Your task to perform on an android device: Search for "razer blackwidow" on bestbuy.com, select the first entry, add it to the cart, then select checkout. Image 0: 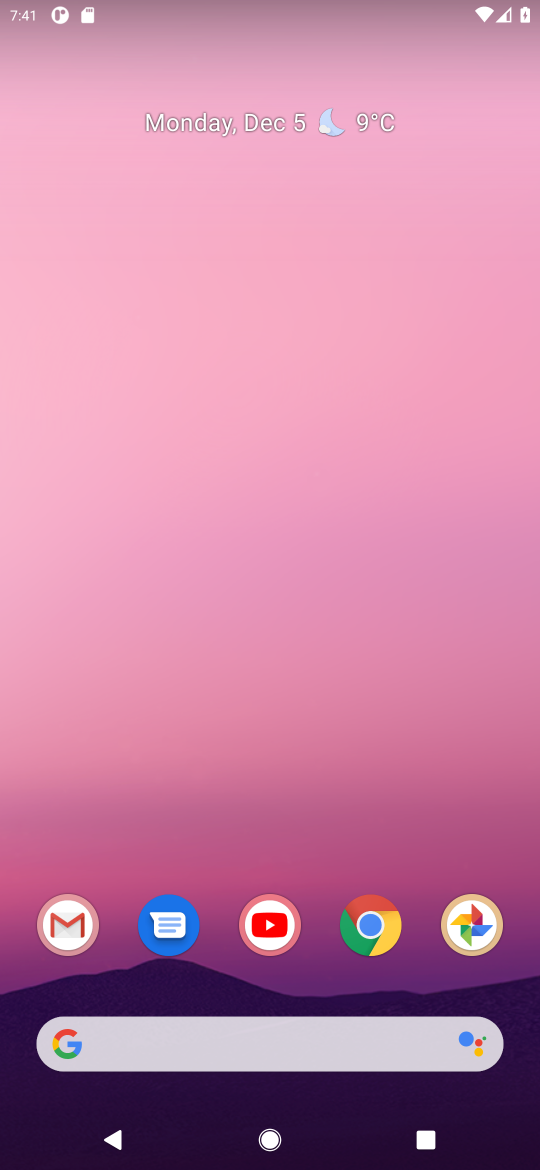
Step 0: click (370, 933)
Your task to perform on an android device: Search for "razer blackwidow" on bestbuy.com, select the first entry, add it to the cart, then select checkout. Image 1: 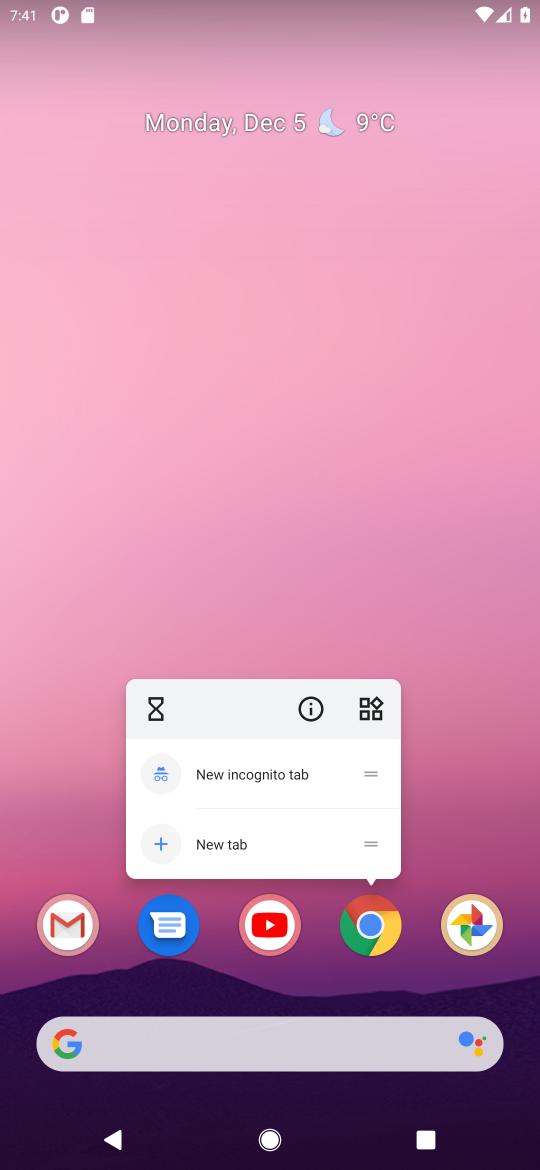
Step 1: click (370, 933)
Your task to perform on an android device: Search for "razer blackwidow" on bestbuy.com, select the first entry, add it to the cart, then select checkout. Image 2: 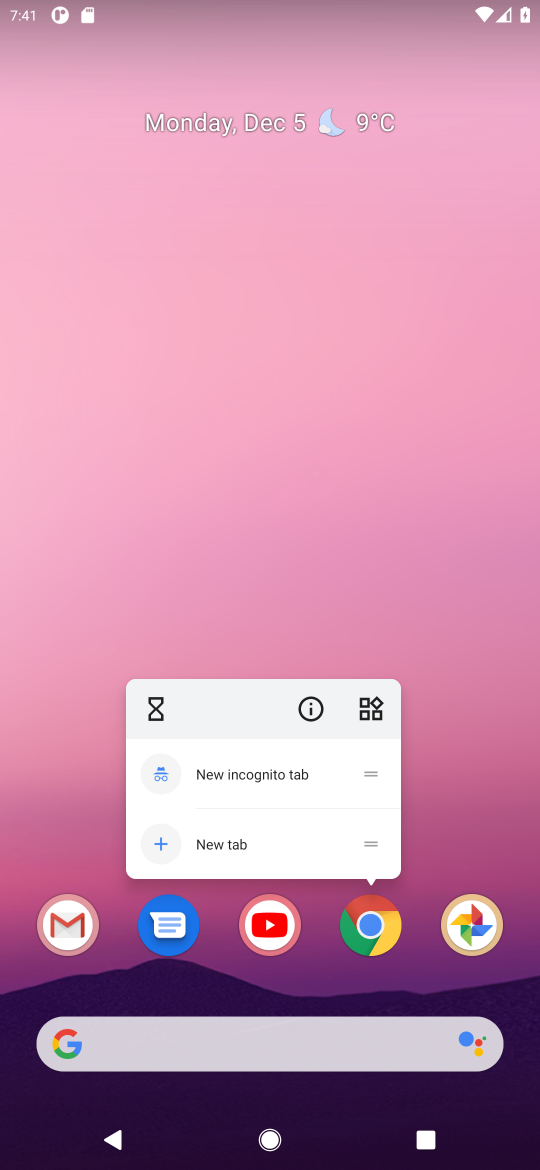
Step 2: click (366, 926)
Your task to perform on an android device: Search for "razer blackwidow" on bestbuy.com, select the first entry, add it to the cart, then select checkout. Image 3: 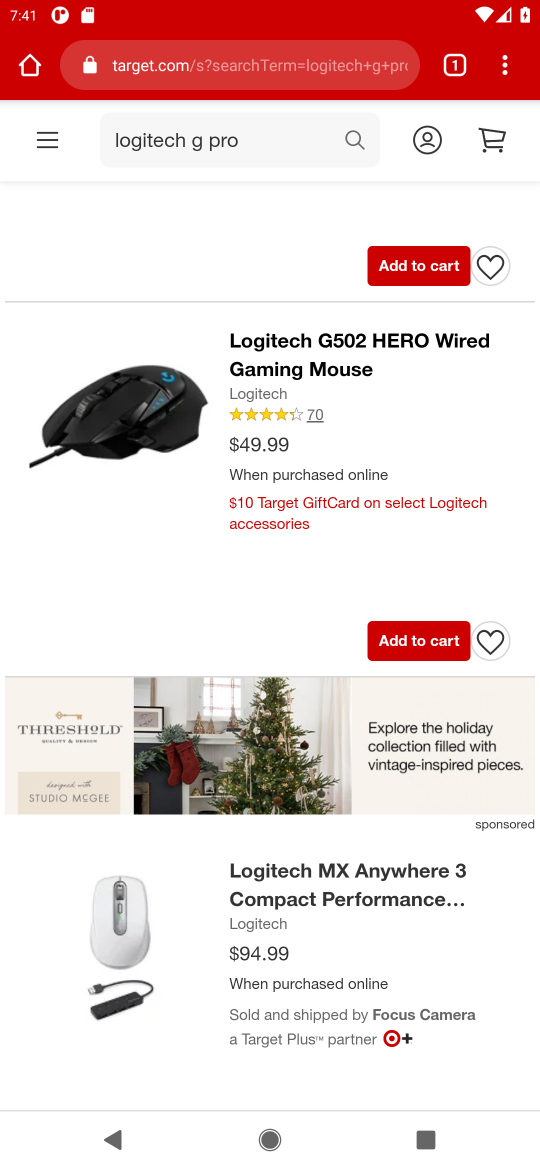
Step 3: click (227, 70)
Your task to perform on an android device: Search for "razer blackwidow" on bestbuy.com, select the first entry, add it to the cart, then select checkout. Image 4: 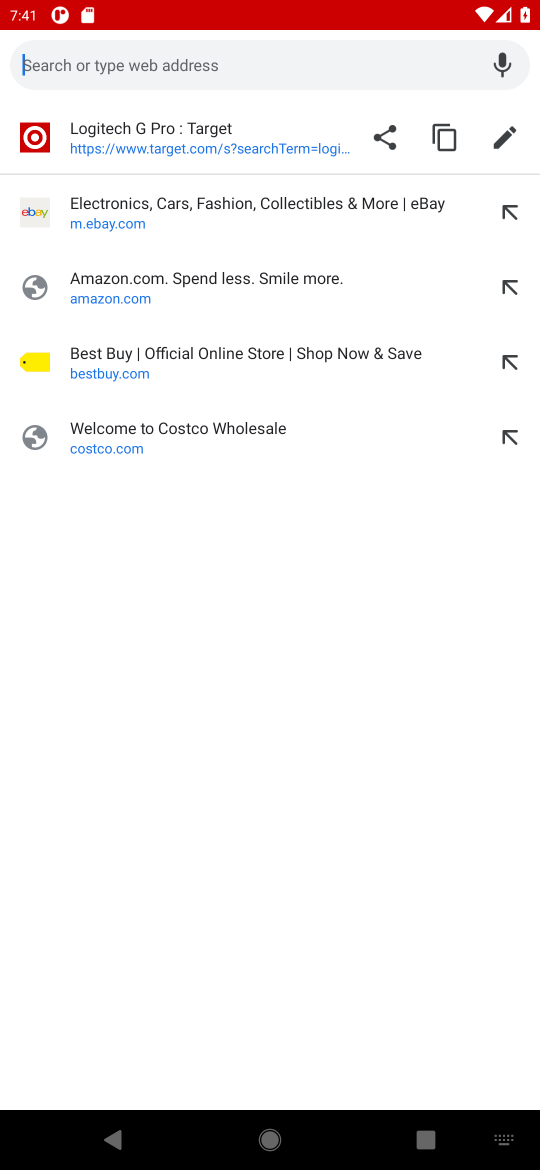
Step 4: click (105, 357)
Your task to perform on an android device: Search for "razer blackwidow" on bestbuy.com, select the first entry, add it to the cart, then select checkout. Image 5: 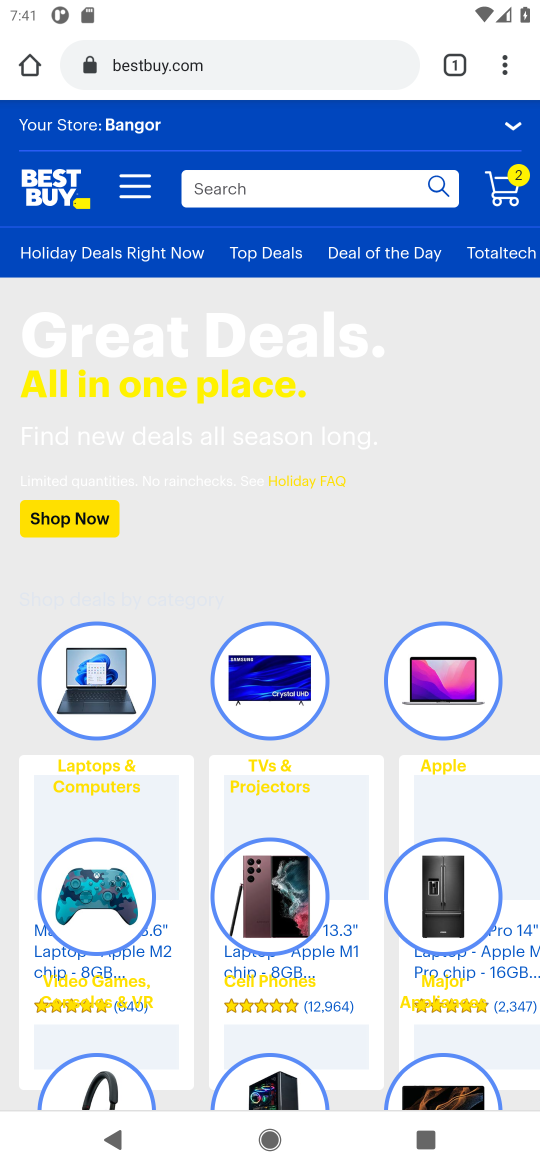
Step 5: click (243, 194)
Your task to perform on an android device: Search for "razer blackwidow" on bestbuy.com, select the first entry, add it to the cart, then select checkout. Image 6: 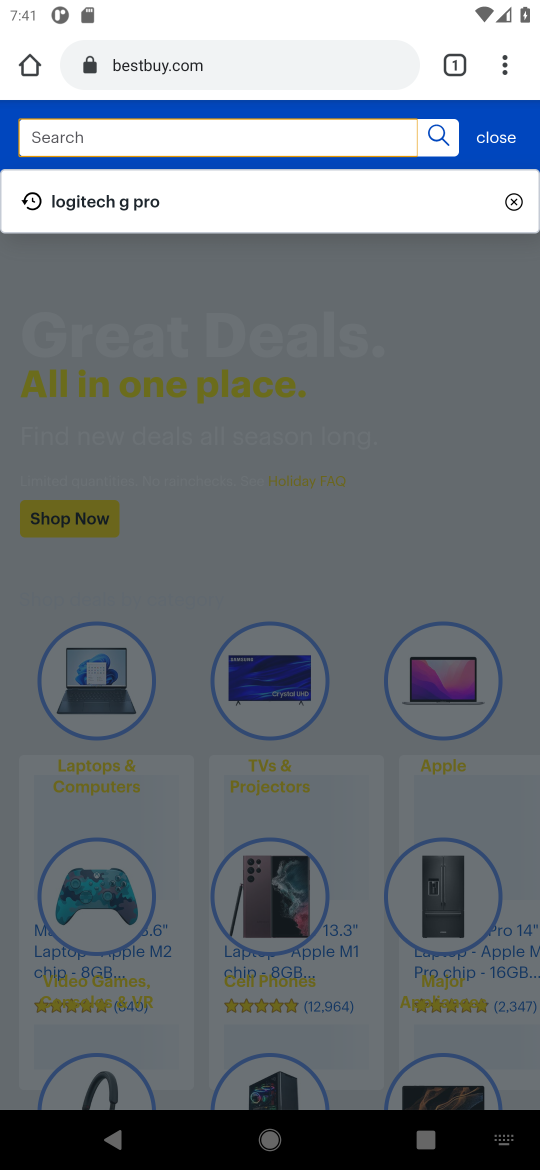
Step 6: type "razer blackwidow"
Your task to perform on an android device: Search for "razer blackwidow" on bestbuy.com, select the first entry, add it to the cart, then select checkout. Image 7: 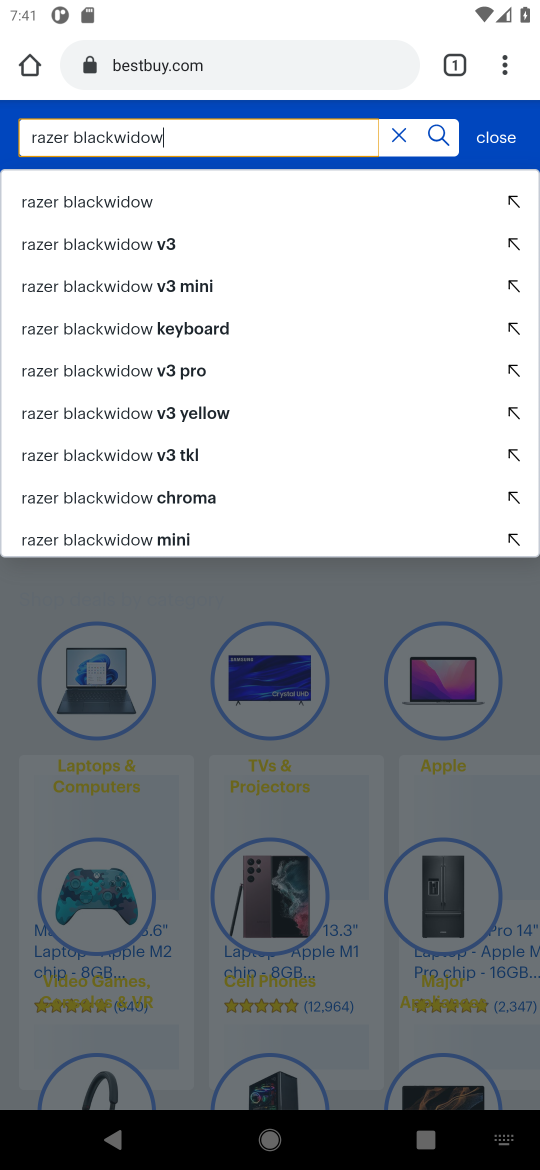
Step 7: click (119, 210)
Your task to perform on an android device: Search for "razer blackwidow" on bestbuy.com, select the first entry, add it to the cart, then select checkout. Image 8: 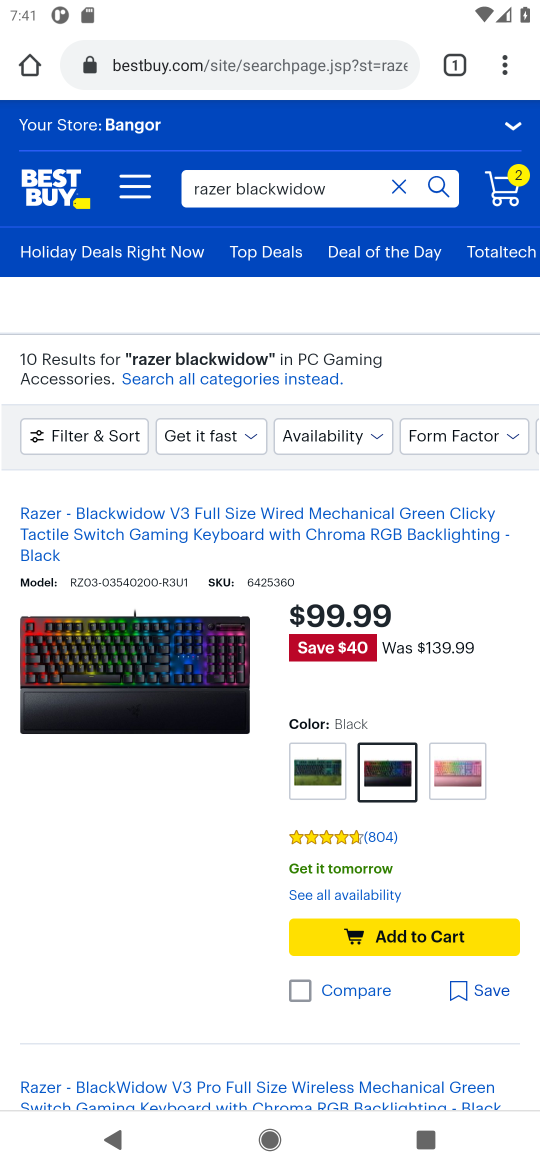
Step 8: click (394, 894)
Your task to perform on an android device: Search for "razer blackwidow" on bestbuy.com, select the first entry, add it to the cart, then select checkout. Image 9: 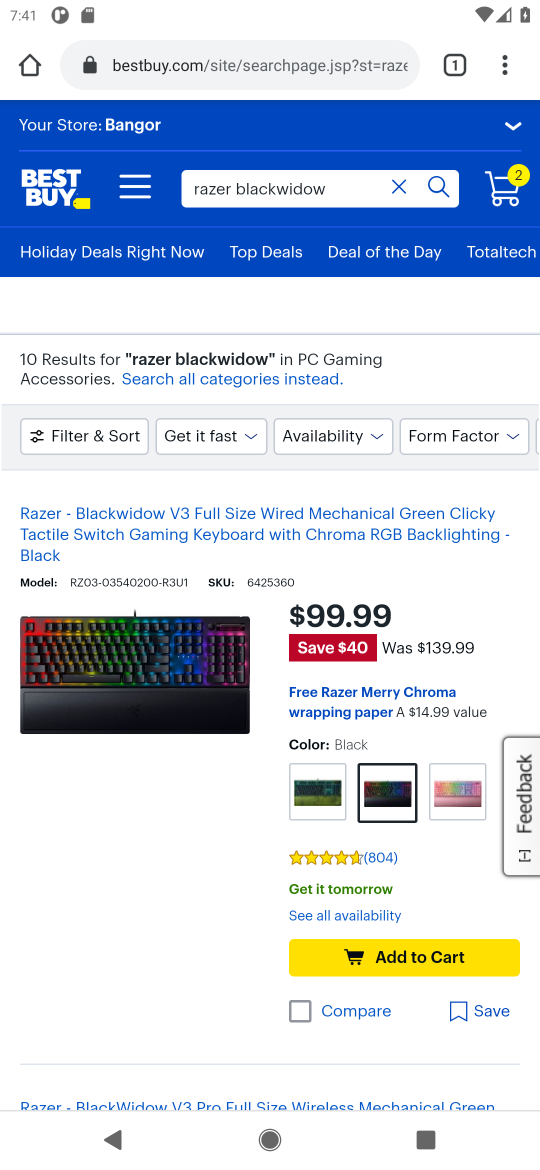
Step 9: click (391, 956)
Your task to perform on an android device: Search for "razer blackwidow" on bestbuy.com, select the first entry, add it to the cart, then select checkout. Image 10: 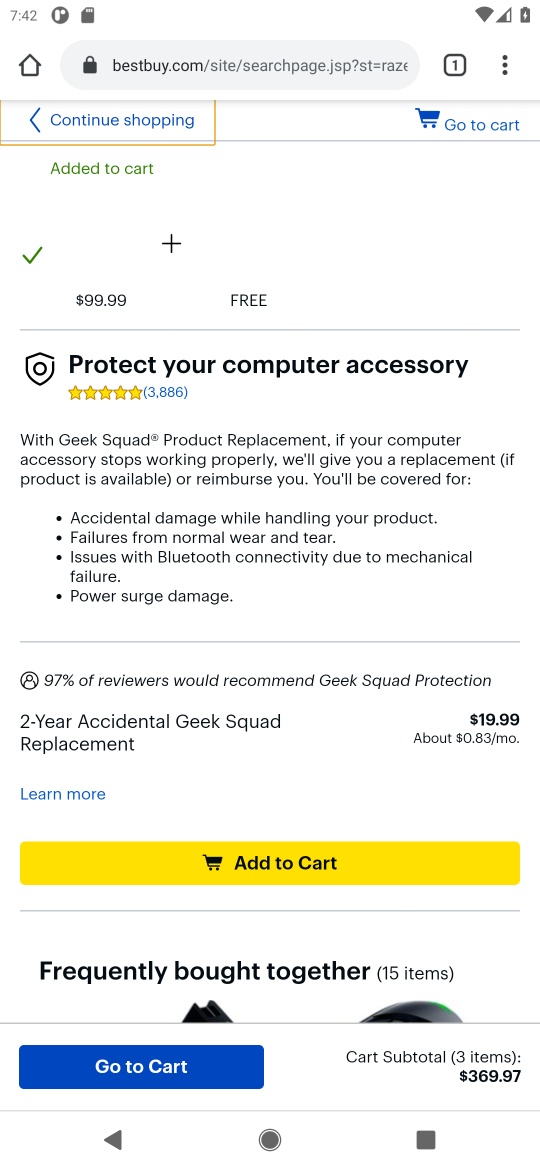
Step 10: click (474, 122)
Your task to perform on an android device: Search for "razer blackwidow" on bestbuy.com, select the first entry, add it to the cart, then select checkout. Image 11: 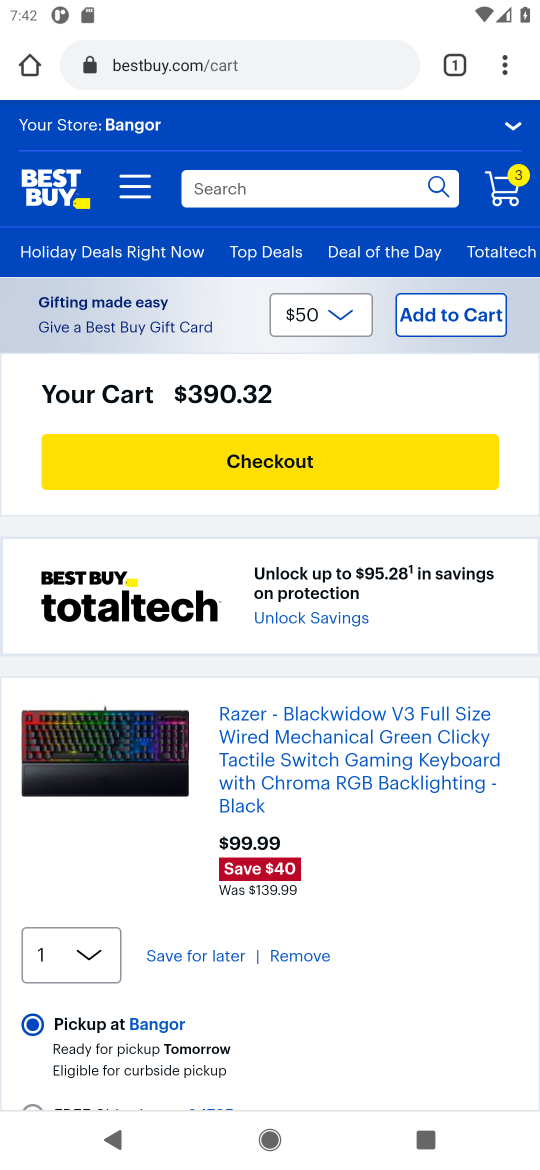
Step 11: click (258, 459)
Your task to perform on an android device: Search for "razer blackwidow" on bestbuy.com, select the first entry, add it to the cart, then select checkout. Image 12: 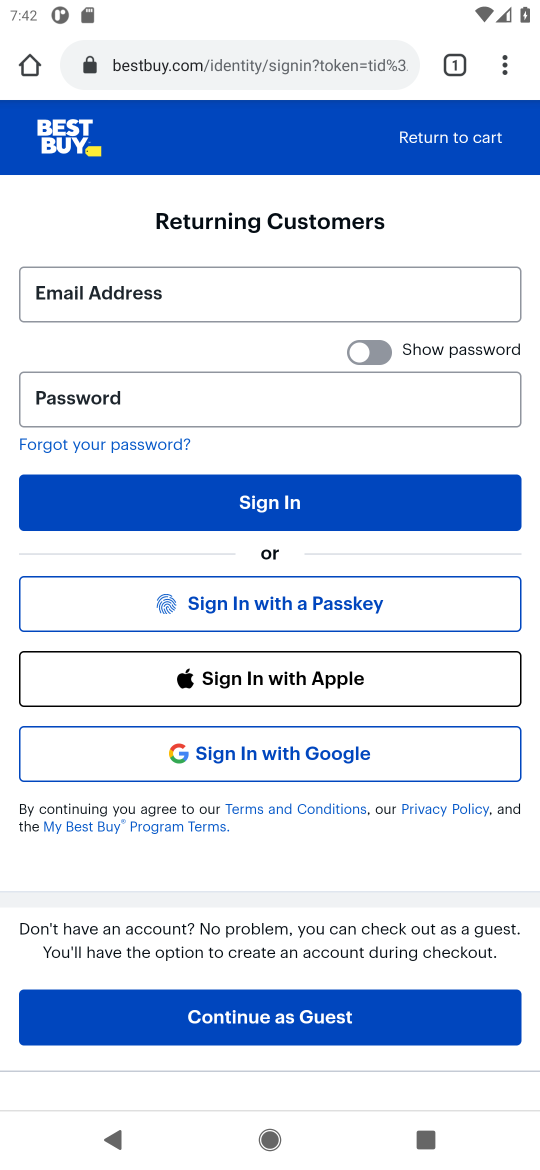
Step 12: task complete